Your task to perform on an android device: Show me popular videos on Youtube Image 0: 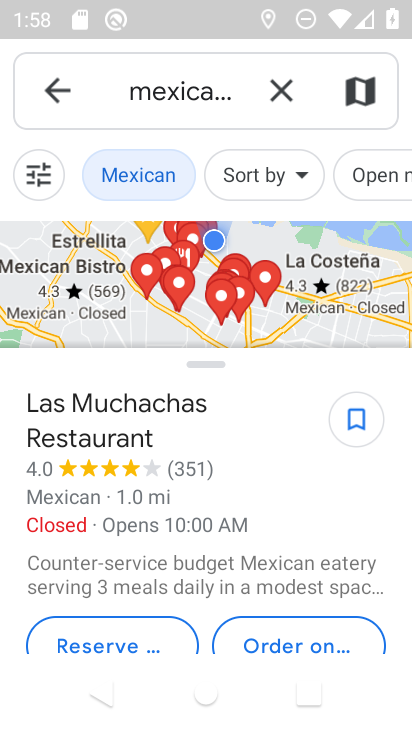
Step 0: press home button
Your task to perform on an android device: Show me popular videos on Youtube Image 1: 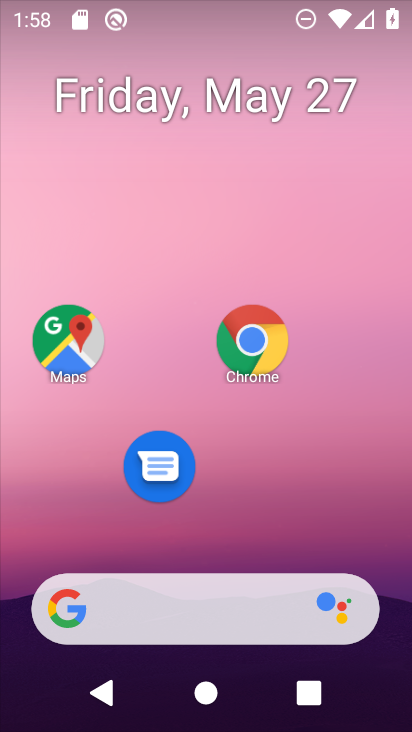
Step 1: drag from (342, 558) to (262, 138)
Your task to perform on an android device: Show me popular videos on Youtube Image 2: 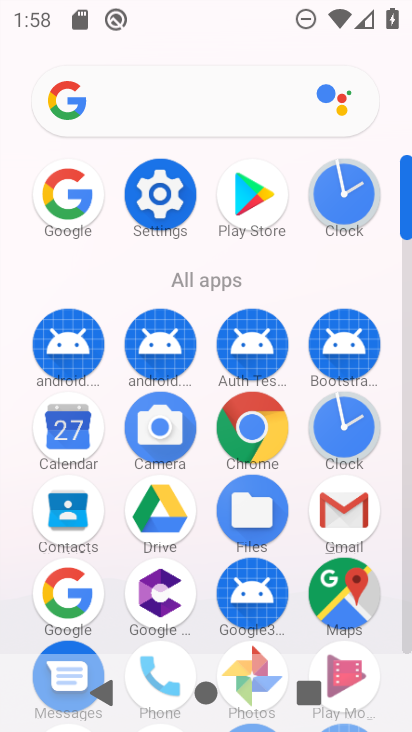
Step 2: drag from (299, 349) to (263, 61)
Your task to perform on an android device: Show me popular videos on Youtube Image 3: 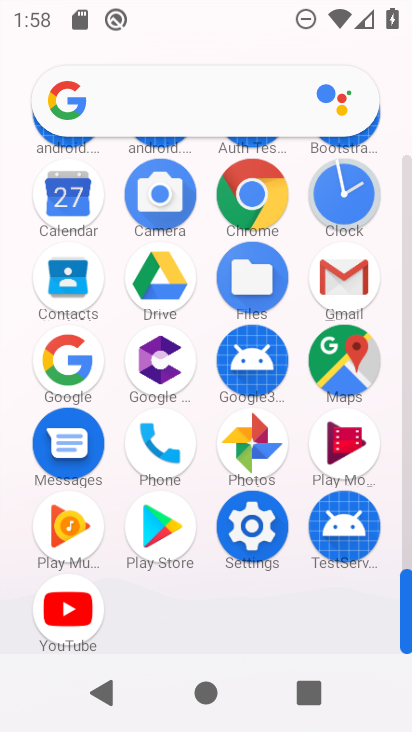
Step 3: click (74, 636)
Your task to perform on an android device: Show me popular videos on Youtube Image 4: 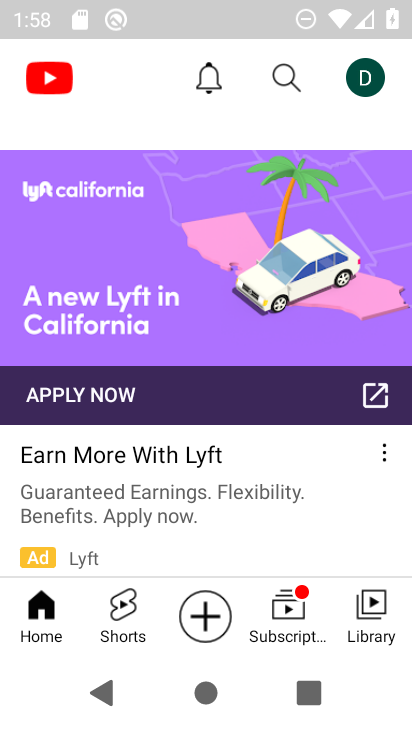
Step 4: click (122, 158)
Your task to perform on an android device: Show me popular videos on Youtube Image 5: 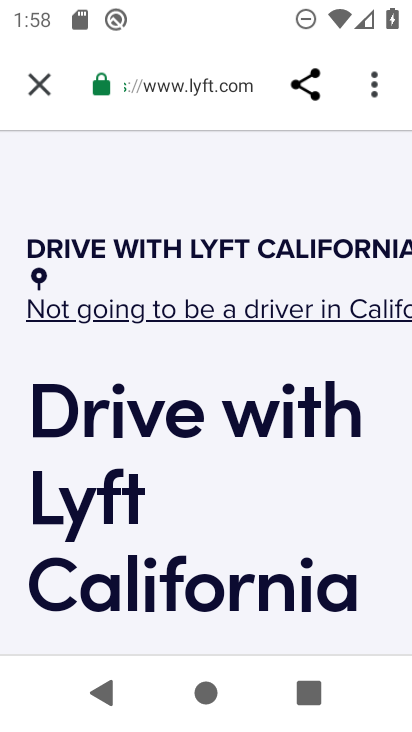
Step 5: click (56, 81)
Your task to perform on an android device: Show me popular videos on Youtube Image 6: 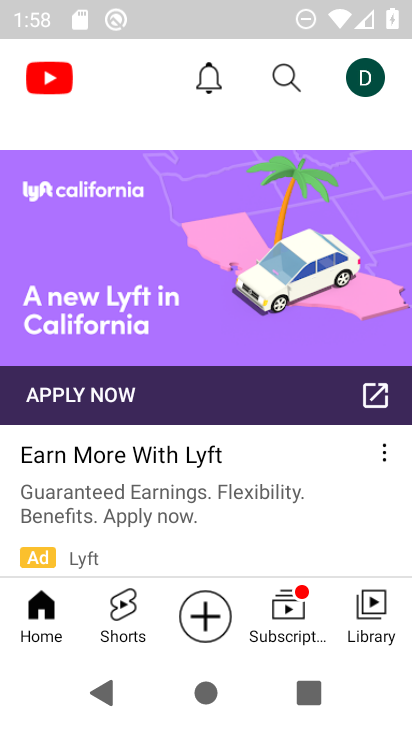
Step 6: drag from (101, 221) to (110, 347)
Your task to perform on an android device: Show me popular videos on Youtube Image 7: 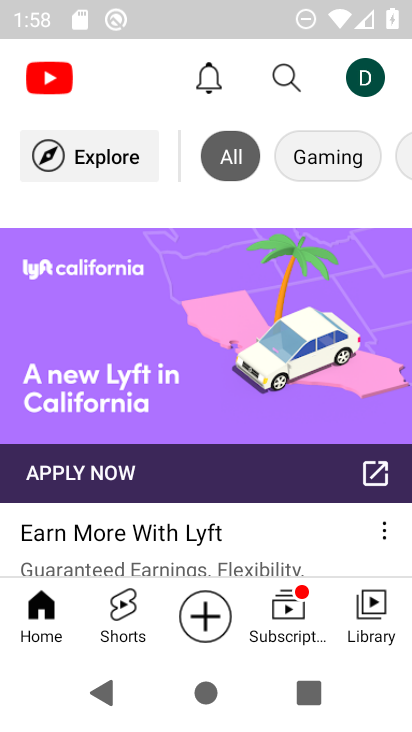
Step 7: click (84, 161)
Your task to perform on an android device: Show me popular videos on Youtube Image 8: 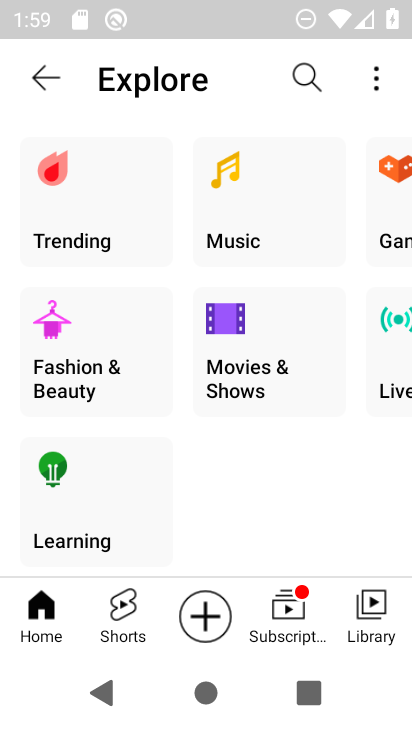
Step 8: click (85, 161)
Your task to perform on an android device: Show me popular videos on Youtube Image 9: 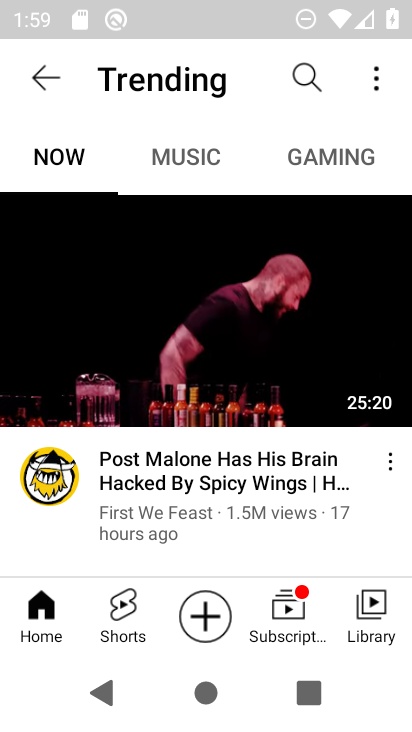
Step 9: task complete